Your task to perform on an android device: Open Youtube and go to the subscriptions tab Image 0: 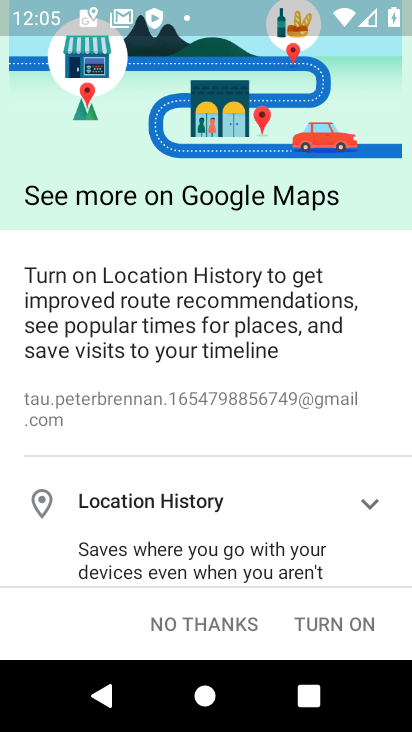
Step 0: press back button
Your task to perform on an android device: Open Youtube and go to the subscriptions tab Image 1: 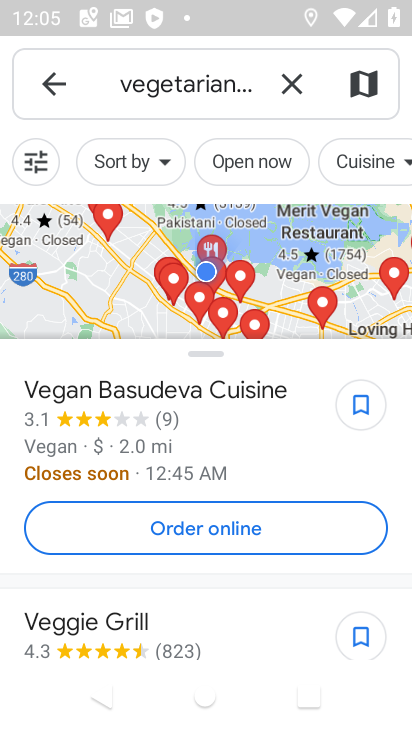
Step 1: press back button
Your task to perform on an android device: Open Youtube and go to the subscriptions tab Image 2: 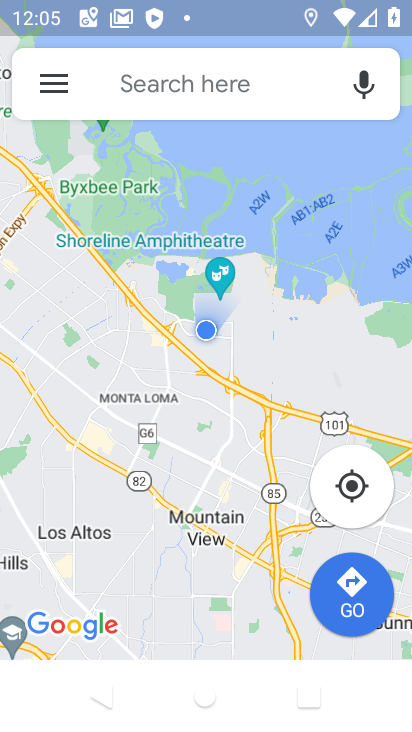
Step 2: press back button
Your task to perform on an android device: Open Youtube and go to the subscriptions tab Image 3: 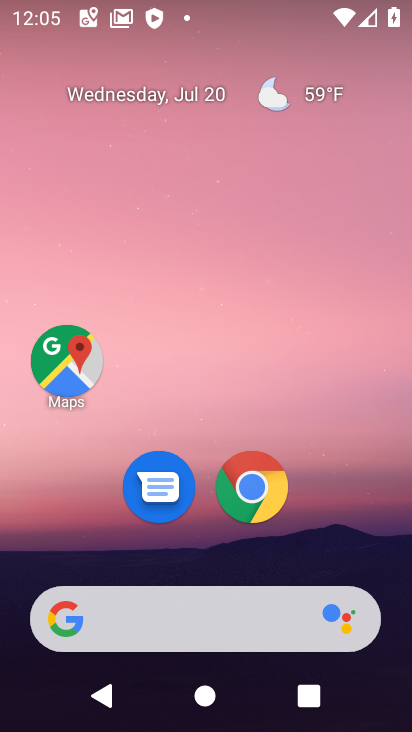
Step 3: drag from (214, 570) to (330, 0)
Your task to perform on an android device: Open Youtube and go to the subscriptions tab Image 4: 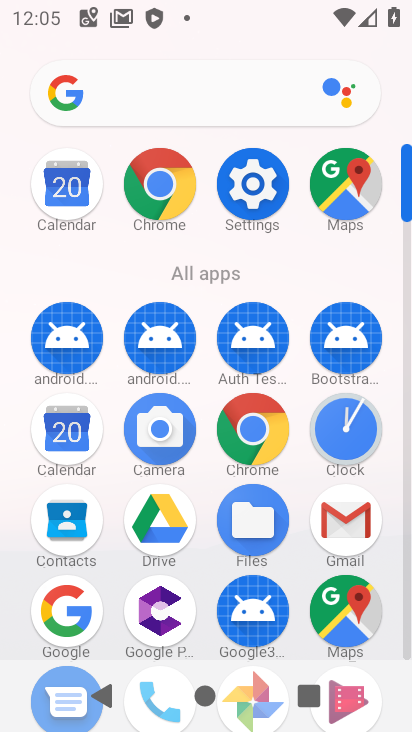
Step 4: drag from (153, 654) to (322, 127)
Your task to perform on an android device: Open Youtube and go to the subscriptions tab Image 5: 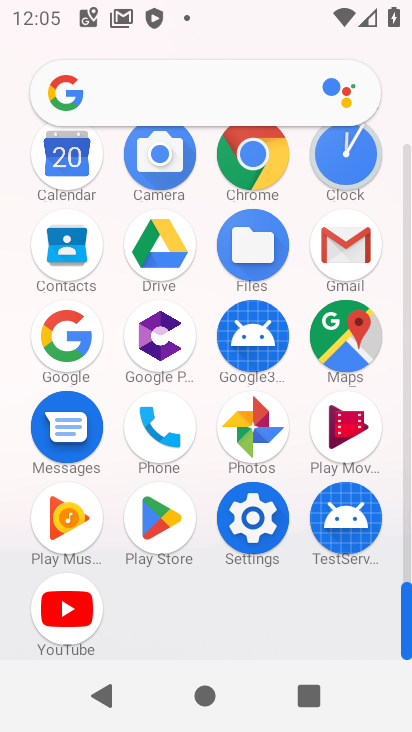
Step 5: click (74, 608)
Your task to perform on an android device: Open Youtube and go to the subscriptions tab Image 6: 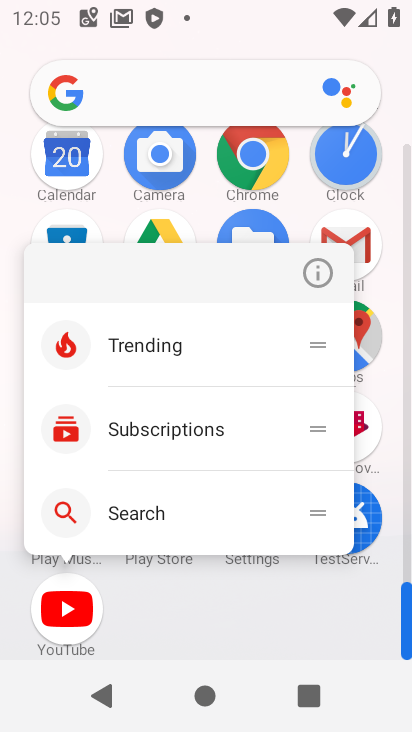
Step 6: click (63, 611)
Your task to perform on an android device: Open Youtube and go to the subscriptions tab Image 7: 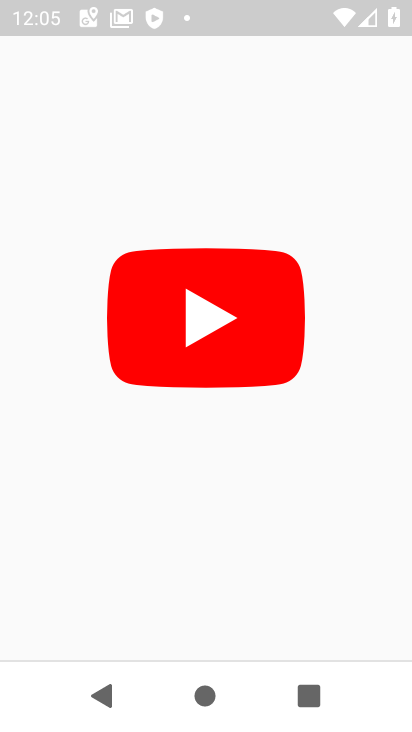
Step 7: click (68, 610)
Your task to perform on an android device: Open Youtube and go to the subscriptions tab Image 8: 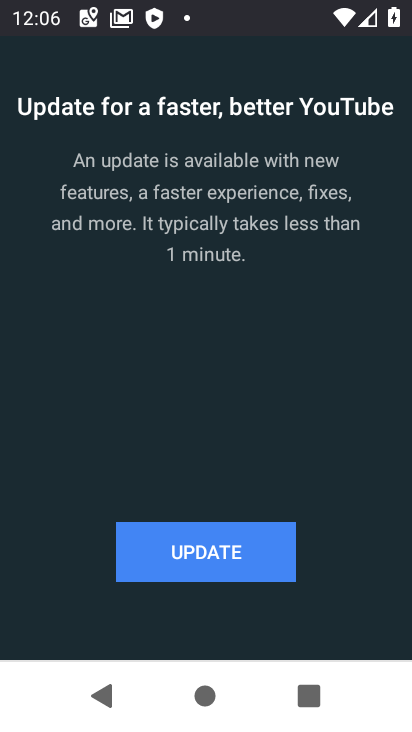
Step 8: click (192, 547)
Your task to perform on an android device: Open Youtube and go to the subscriptions tab Image 9: 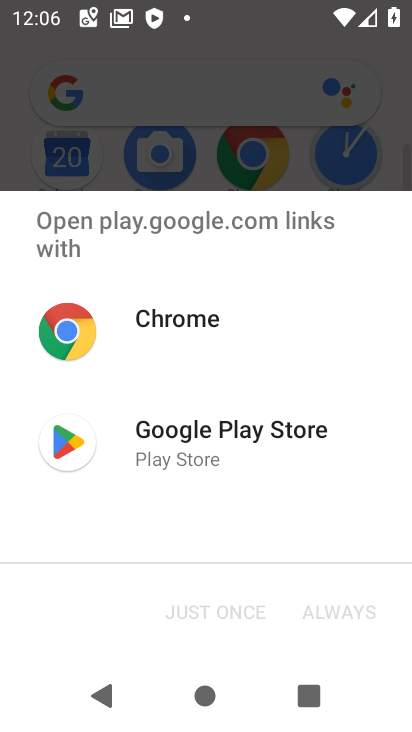
Step 9: click (180, 464)
Your task to perform on an android device: Open Youtube and go to the subscriptions tab Image 10: 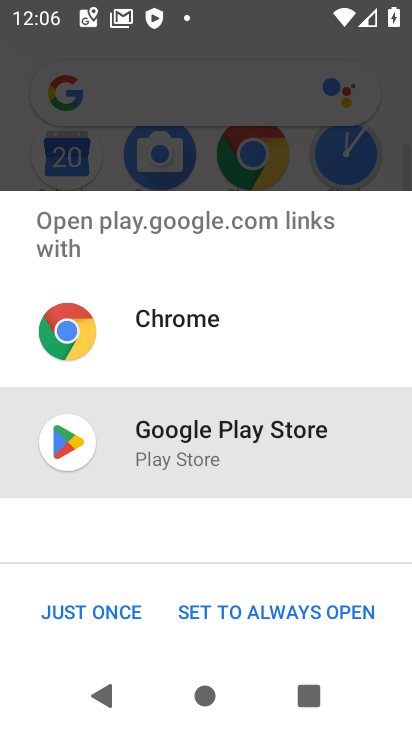
Step 10: click (121, 599)
Your task to perform on an android device: Open Youtube and go to the subscriptions tab Image 11: 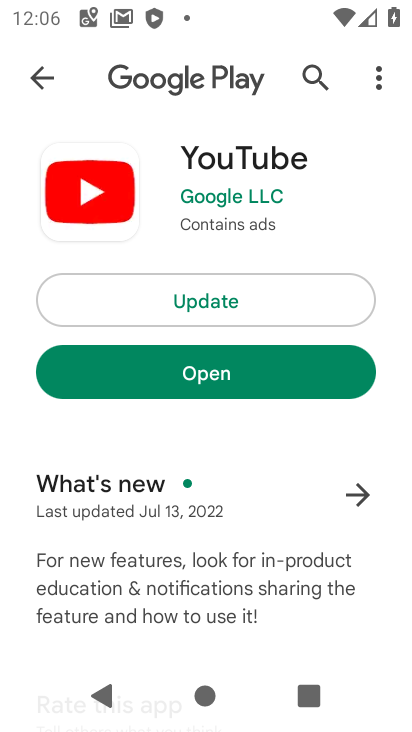
Step 11: click (201, 301)
Your task to perform on an android device: Open Youtube and go to the subscriptions tab Image 12: 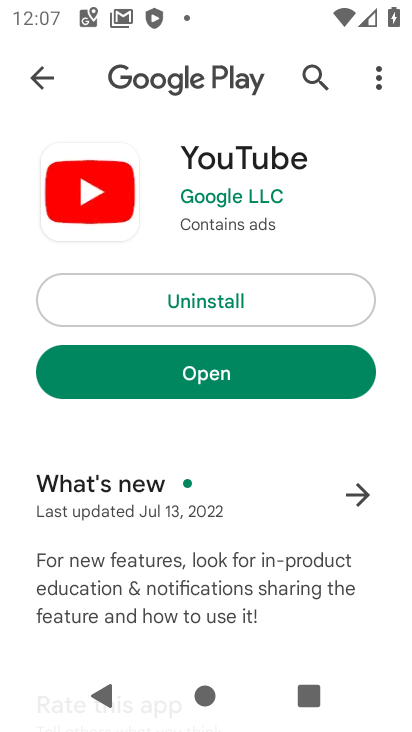
Step 12: click (188, 370)
Your task to perform on an android device: Open Youtube and go to the subscriptions tab Image 13: 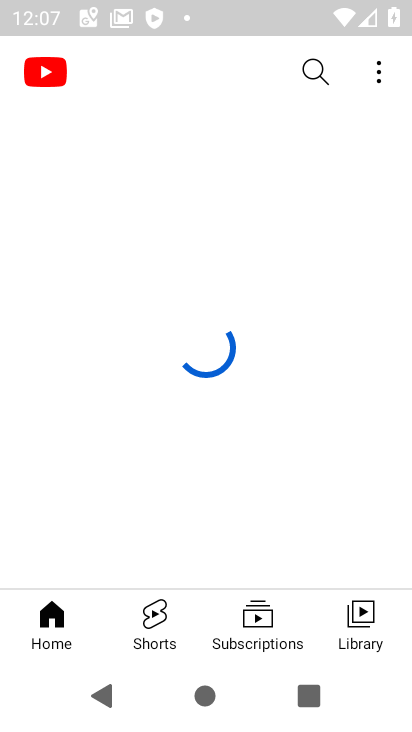
Step 13: click (252, 637)
Your task to perform on an android device: Open Youtube and go to the subscriptions tab Image 14: 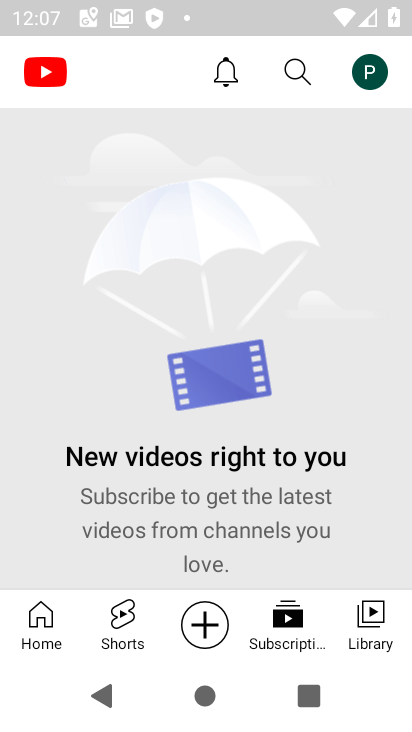
Step 14: task complete